Your task to perform on an android device: allow cookies in the chrome app Image 0: 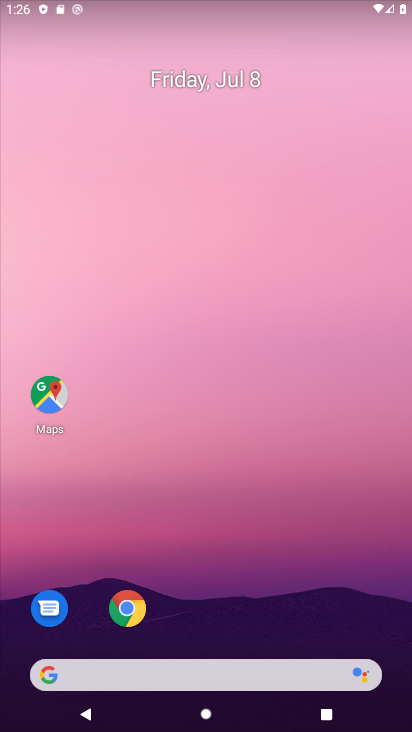
Step 0: click (129, 613)
Your task to perform on an android device: allow cookies in the chrome app Image 1: 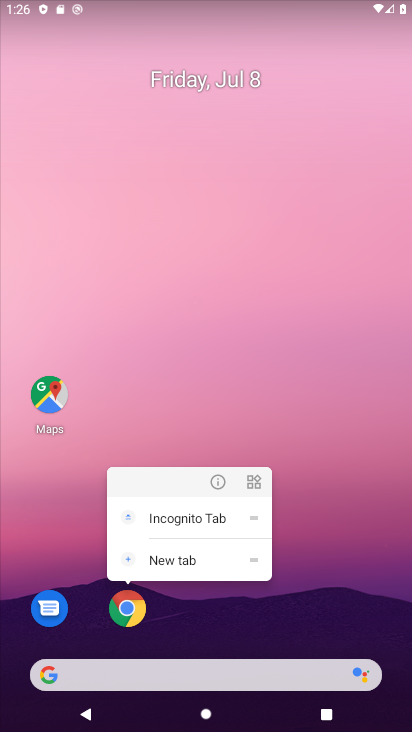
Step 1: click (129, 613)
Your task to perform on an android device: allow cookies in the chrome app Image 2: 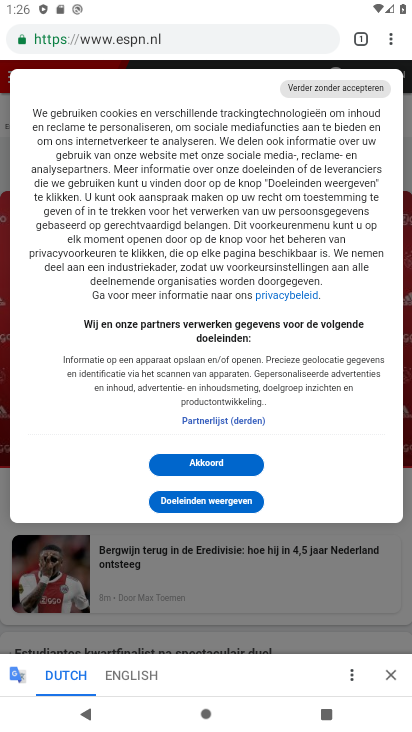
Step 2: press home button
Your task to perform on an android device: allow cookies in the chrome app Image 3: 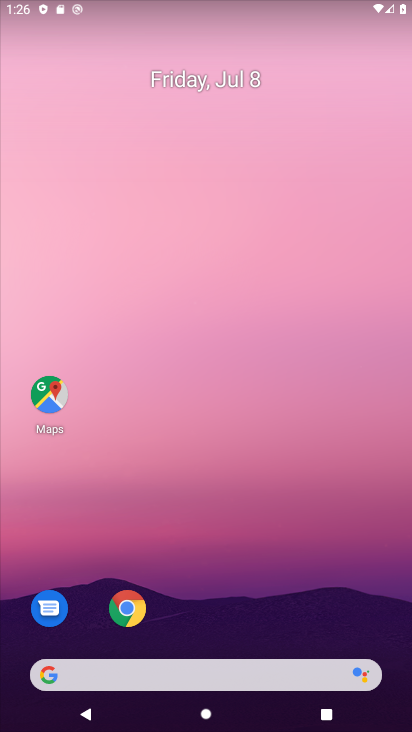
Step 3: click (120, 594)
Your task to perform on an android device: allow cookies in the chrome app Image 4: 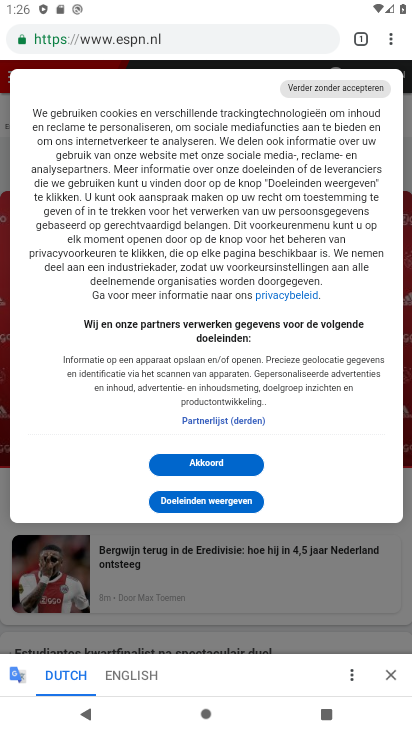
Step 4: drag from (399, 43) to (290, 507)
Your task to perform on an android device: allow cookies in the chrome app Image 5: 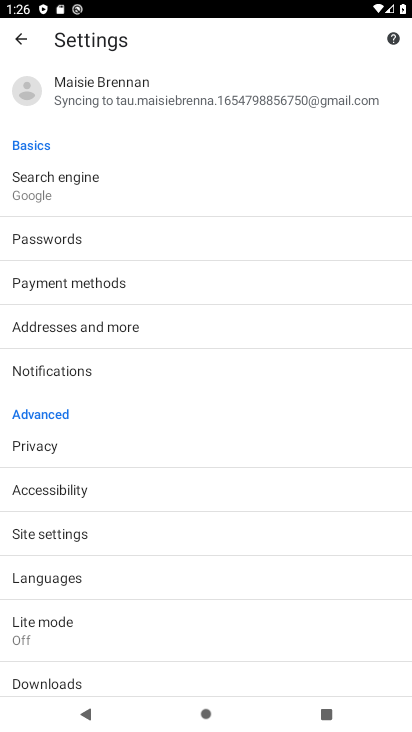
Step 5: click (75, 532)
Your task to perform on an android device: allow cookies in the chrome app Image 6: 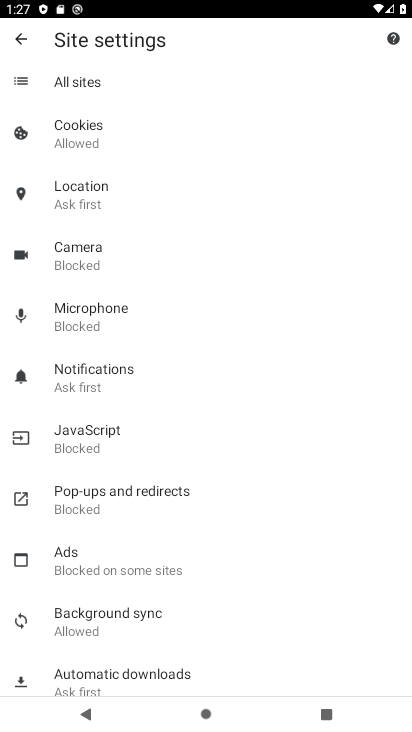
Step 6: click (136, 148)
Your task to perform on an android device: allow cookies in the chrome app Image 7: 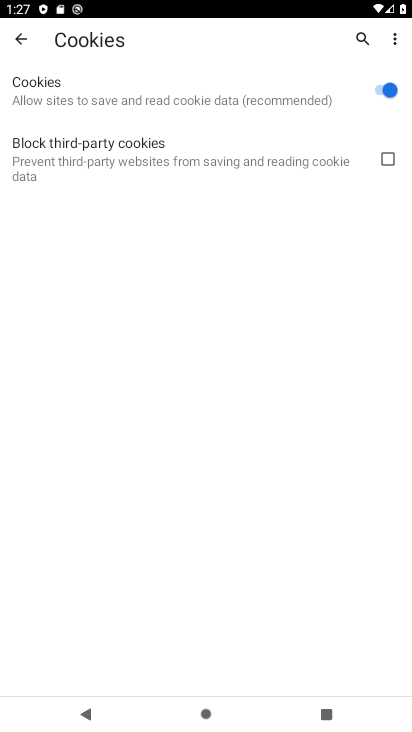
Step 7: task complete